Your task to perform on an android device: turn pop-ups on in chrome Image 0: 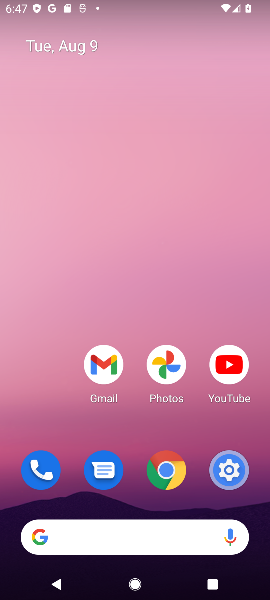
Step 0: click (170, 484)
Your task to perform on an android device: turn pop-ups on in chrome Image 1: 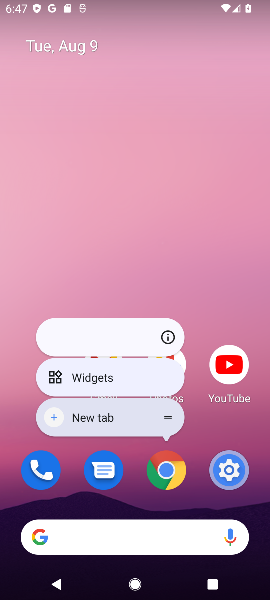
Step 1: click (170, 484)
Your task to perform on an android device: turn pop-ups on in chrome Image 2: 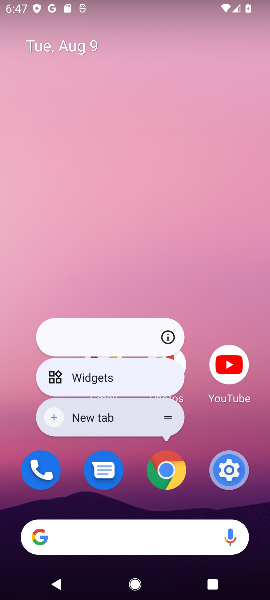
Step 2: click (170, 484)
Your task to perform on an android device: turn pop-ups on in chrome Image 3: 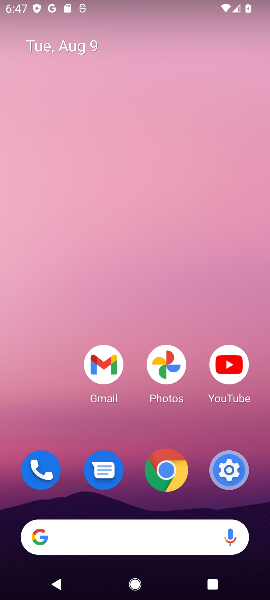
Step 3: click (170, 484)
Your task to perform on an android device: turn pop-ups on in chrome Image 4: 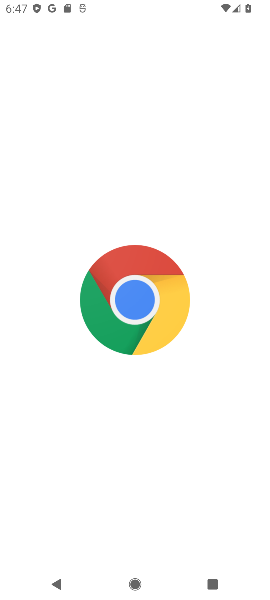
Step 4: click (173, 453)
Your task to perform on an android device: turn pop-ups on in chrome Image 5: 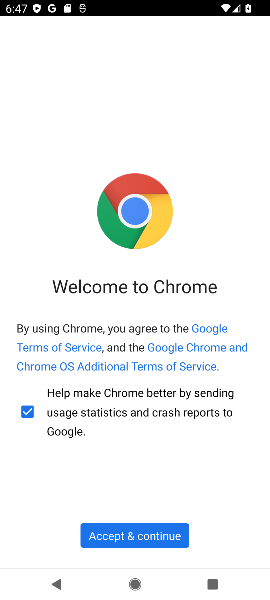
Step 5: click (172, 541)
Your task to perform on an android device: turn pop-ups on in chrome Image 6: 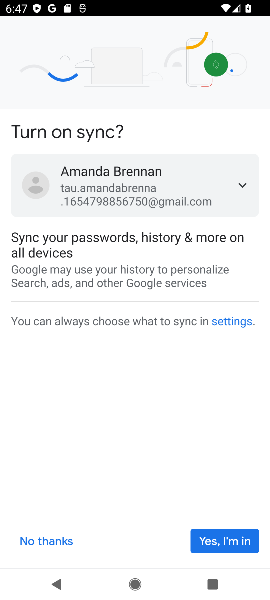
Step 6: click (199, 541)
Your task to perform on an android device: turn pop-ups on in chrome Image 7: 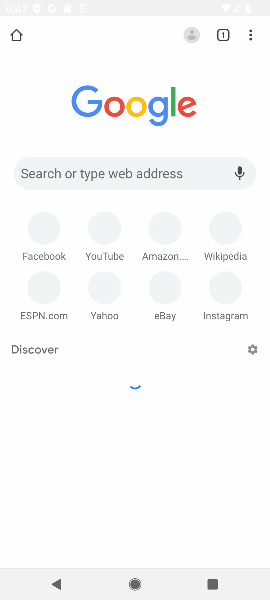
Step 7: click (199, 541)
Your task to perform on an android device: turn pop-ups on in chrome Image 8: 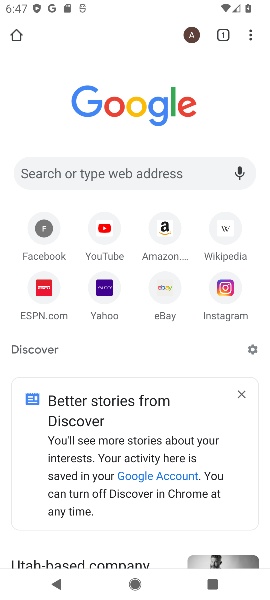
Step 8: click (248, 36)
Your task to perform on an android device: turn pop-ups on in chrome Image 9: 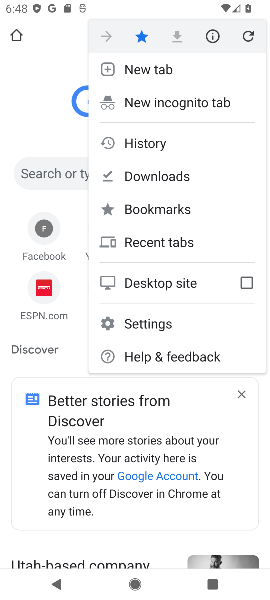
Step 9: click (172, 323)
Your task to perform on an android device: turn pop-ups on in chrome Image 10: 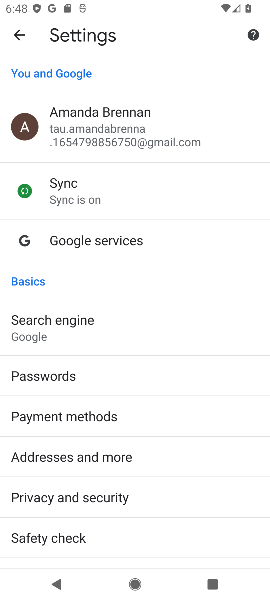
Step 10: drag from (129, 488) to (81, 97)
Your task to perform on an android device: turn pop-ups on in chrome Image 11: 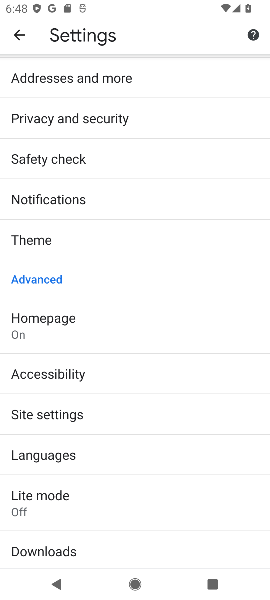
Step 11: click (90, 415)
Your task to perform on an android device: turn pop-ups on in chrome Image 12: 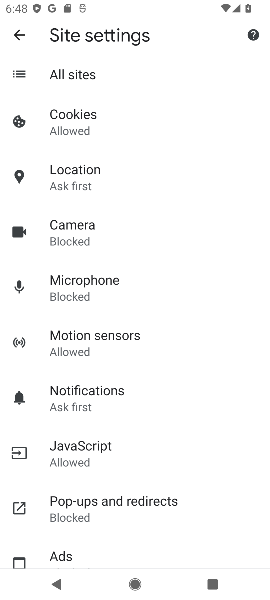
Step 12: click (96, 509)
Your task to perform on an android device: turn pop-ups on in chrome Image 13: 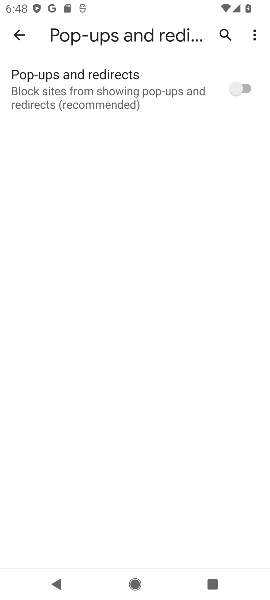
Step 13: click (240, 89)
Your task to perform on an android device: turn pop-ups on in chrome Image 14: 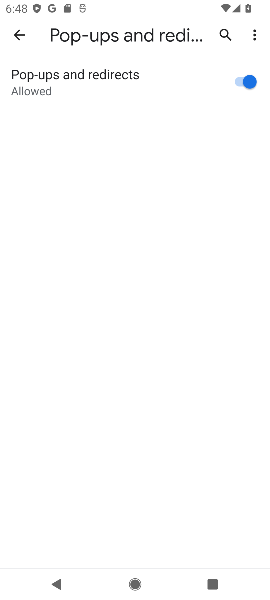
Step 14: task complete